Your task to perform on an android device: check storage Image 0: 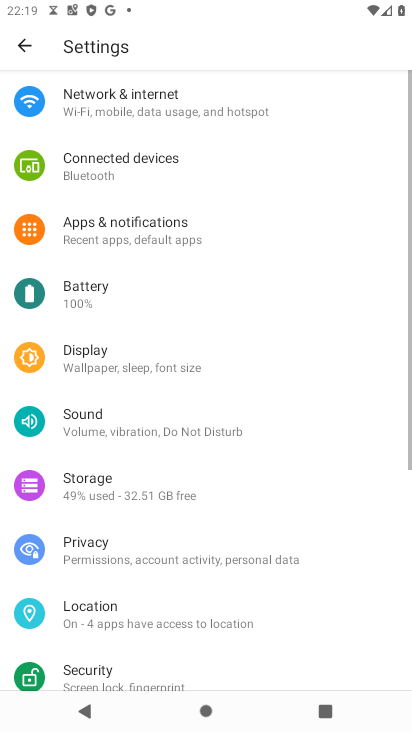
Step 0: press home button
Your task to perform on an android device: check storage Image 1: 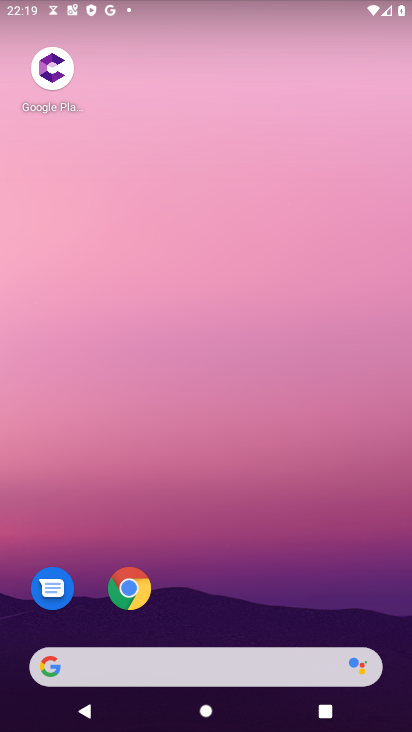
Step 1: drag from (178, 662) to (264, 96)
Your task to perform on an android device: check storage Image 2: 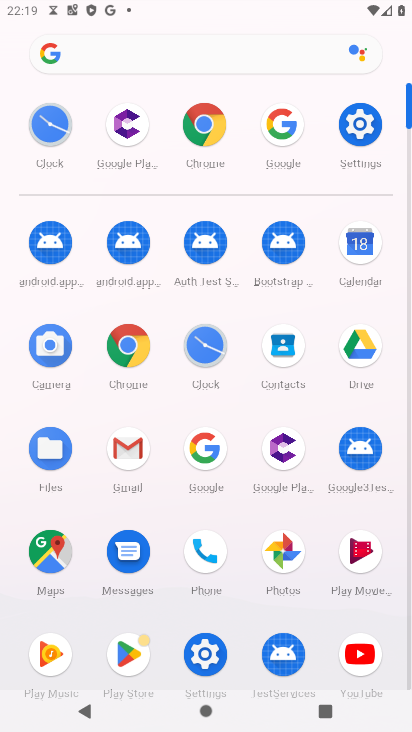
Step 2: click (360, 125)
Your task to perform on an android device: check storage Image 3: 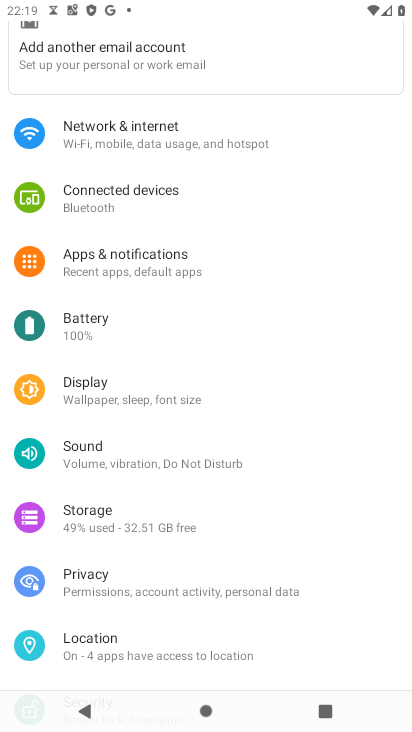
Step 3: click (97, 516)
Your task to perform on an android device: check storage Image 4: 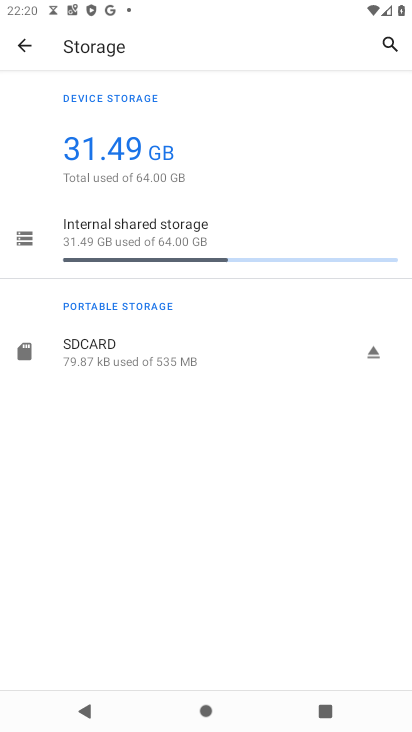
Step 4: task complete